Your task to perform on an android device: check storage Image 0: 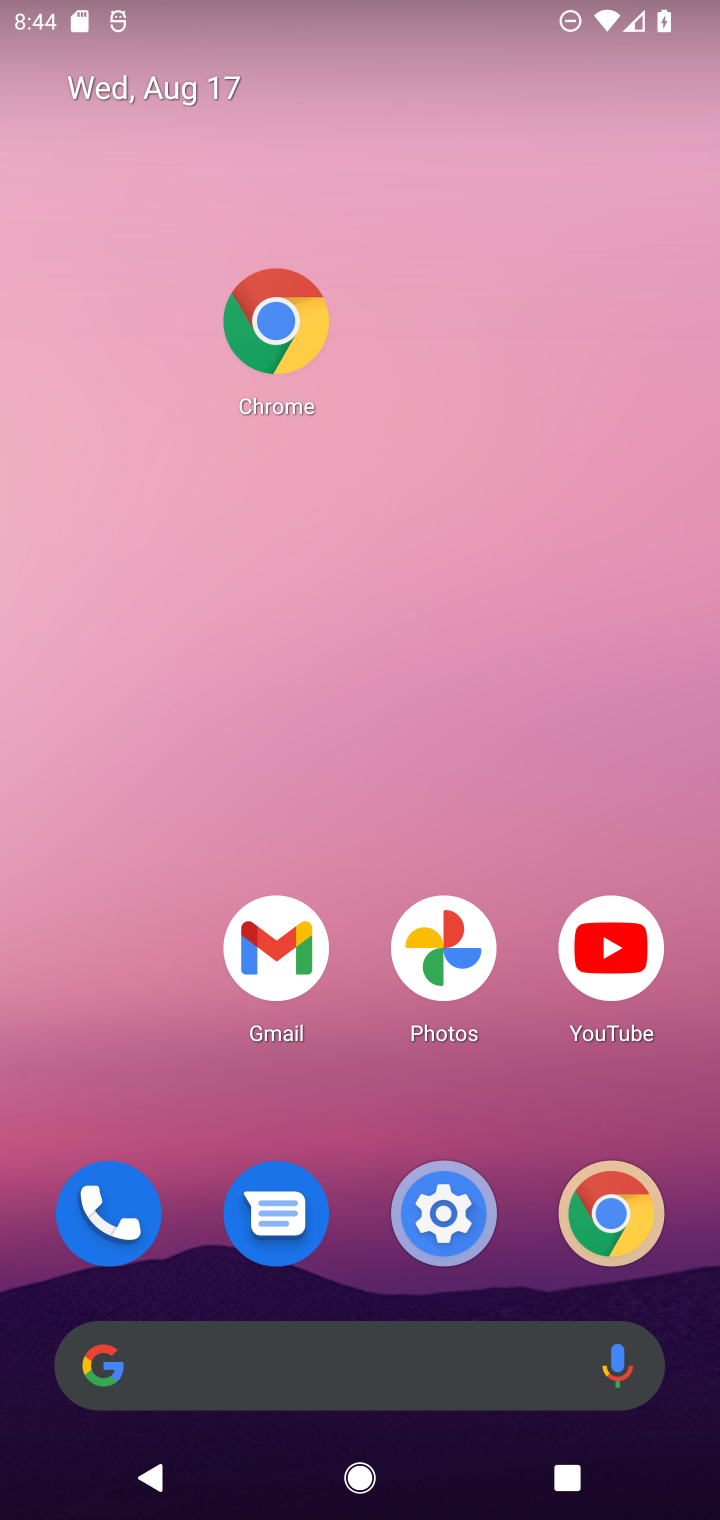
Step 0: click (427, 1231)
Your task to perform on an android device: check storage Image 1: 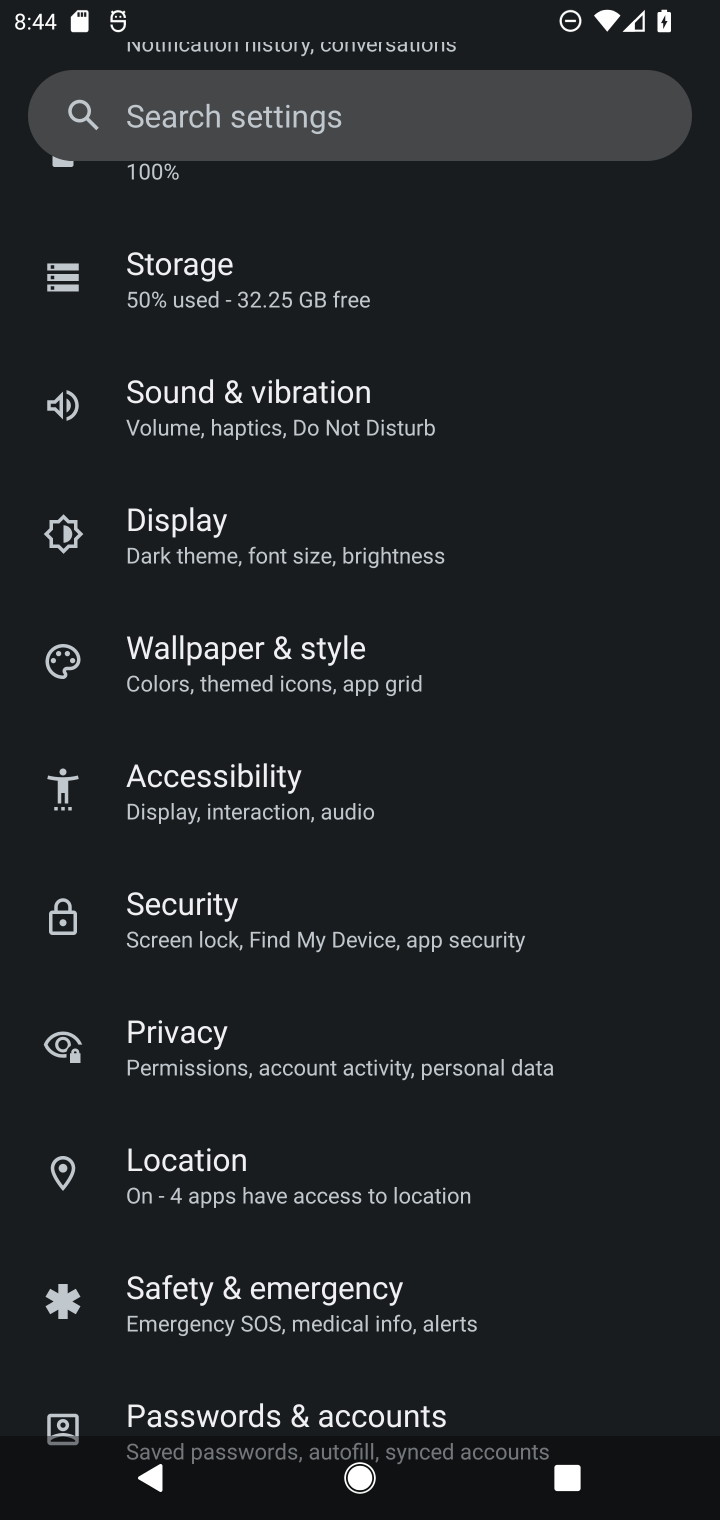
Step 1: click (255, 308)
Your task to perform on an android device: check storage Image 2: 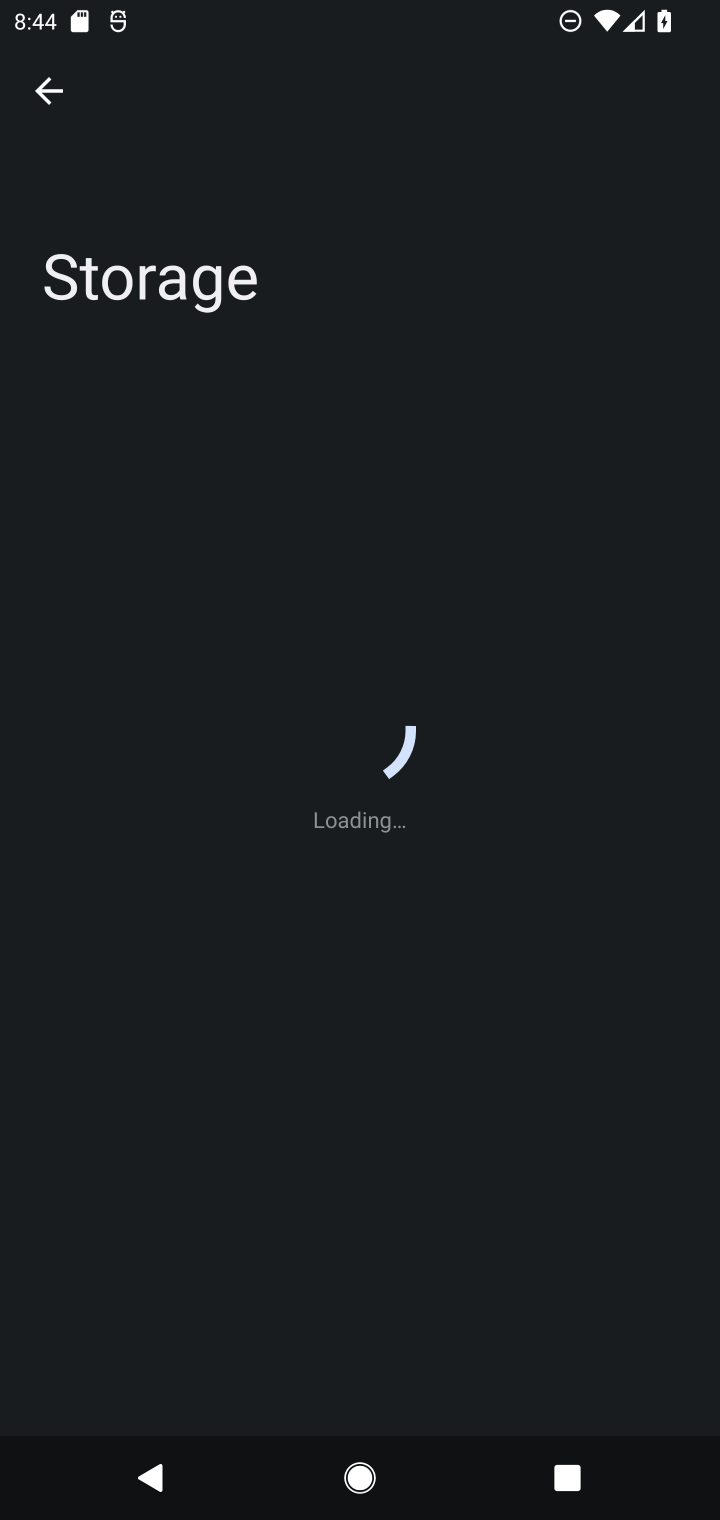
Step 2: task complete